Your task to perform on an android device: Search for vegetarian restaurants on Maps Image 0: 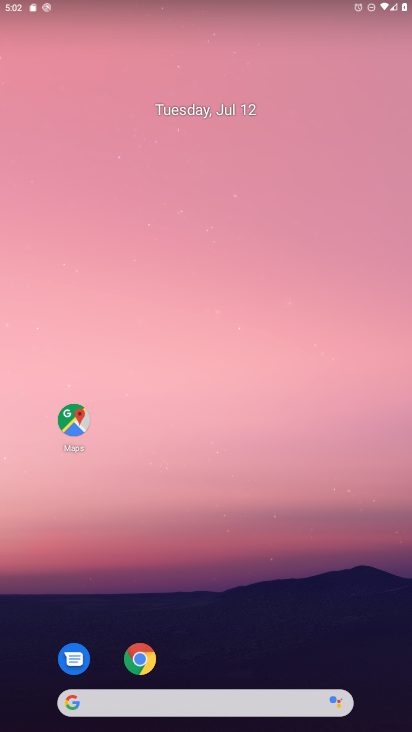
Step 0: click (66, 426)
Your task to perform on an android device: Search for vegetarian restaurants on Maps Image 1: 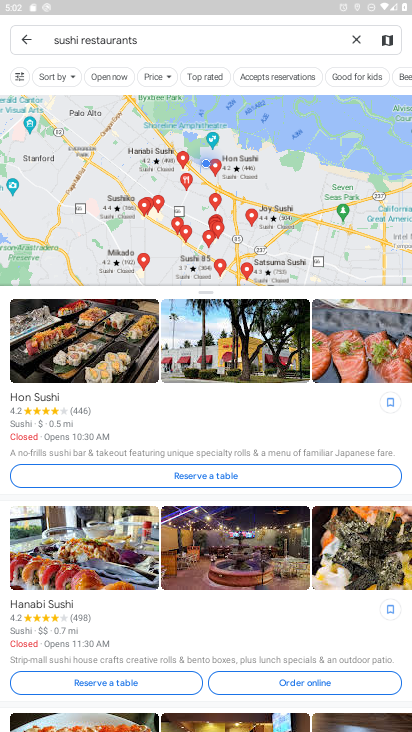
Step 1: click (32, 38)
Your task to perform on an android device: Search for vegetarian restaurants on Maps Image 2: 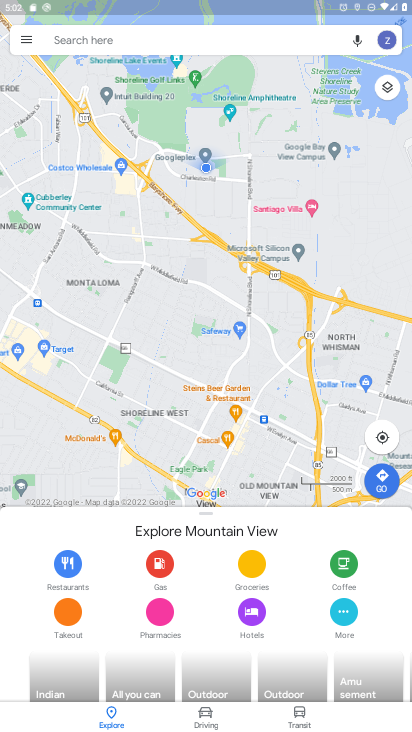
Step 2: click (141, 40)
Your task to perform on an android device: Search for vegetarian restaurants on Maps Image 3: 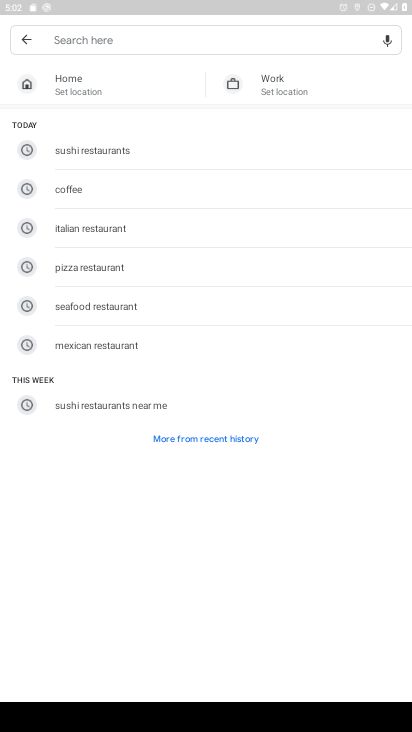
Step 3: type "vegetarian restaurants"
Your task to perform on an android device: Search for vegetarian restaurants on Maps Image 4: 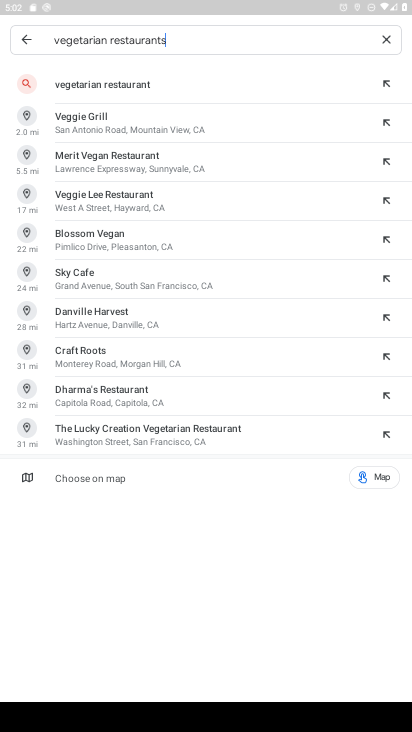
Step 4: click (122, 95)
Your task to perform on an android device: Search for vegetarian restaurants on Maps Image 5: 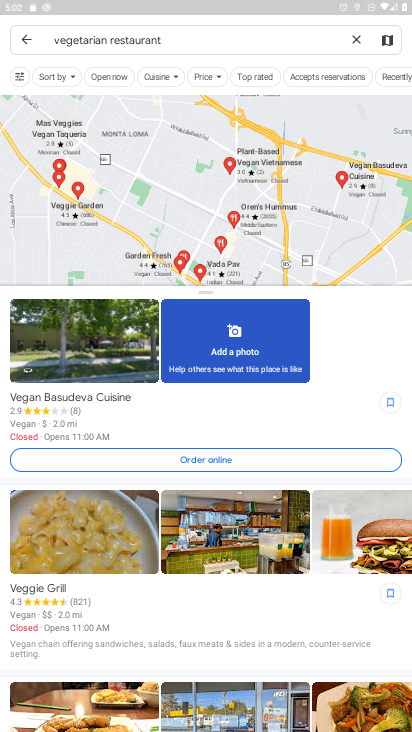
Step 5: task complete